Your task to perform on an android device: Open the calendar app, open the side menu, and click the "Day" option Image 0: 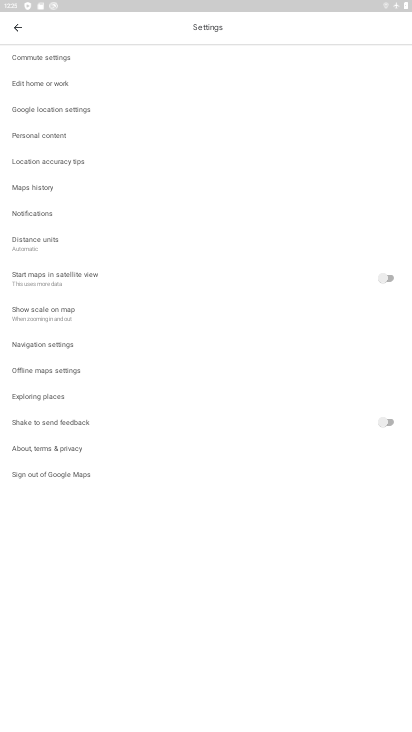
Step 0: press home button
Your task to perform on an android device: Open the calendar app, open the side menu, and click the "Day" option Image 1: 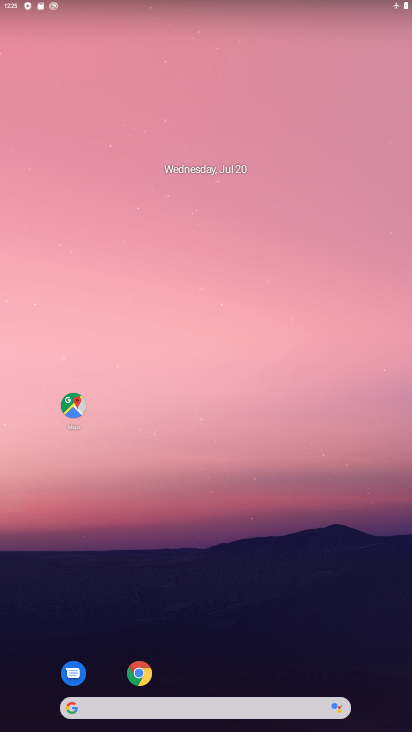
Step 1: drag from (232, 632) to (222, 166)
Your task to perform on an android device: Open the calendar app, open the side menu, and click the "Day" option Image 2: 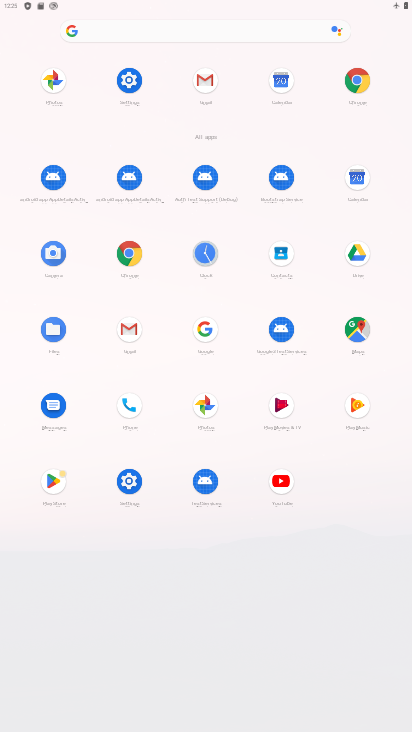
Step 2: click (358, 172)
Your task to perform on an android device: Open the calendar app, open the side menu, and click the "Day" option Image 3: 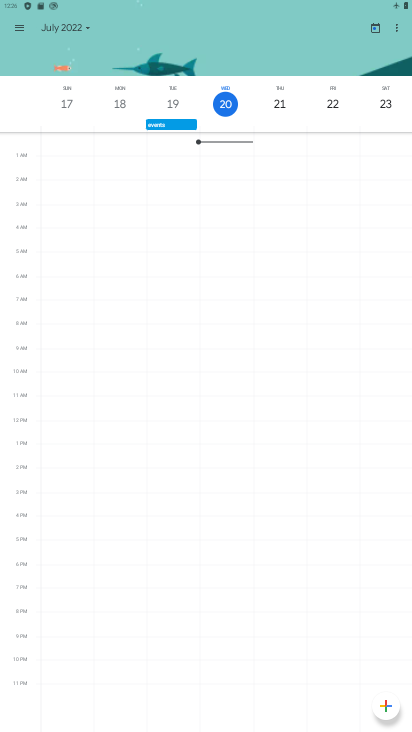
Step 3: click (19, 28)
Your task to perform on an android device: Open the calendar app, open the side menu, and click the "Day" option Image 4: 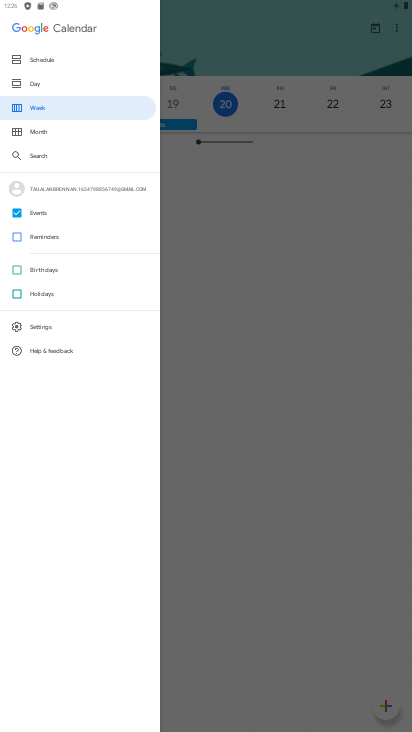
Step 4: click (48, 77)
Your task to perform on an android device: Open the calendar app, open the side menu, and click the "Day" option Image 5: 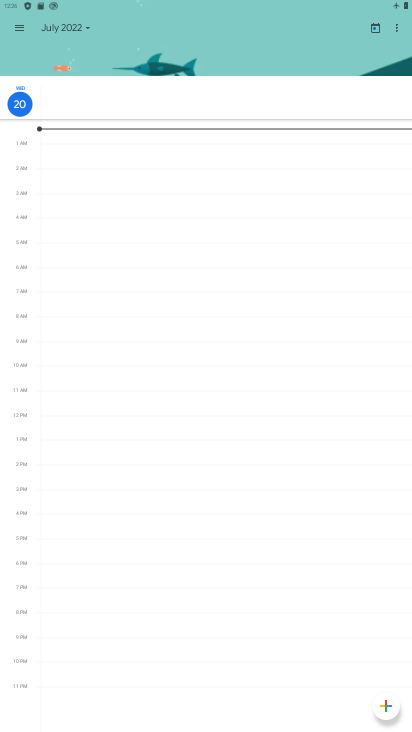
Step 5: task complete